Your task to perform on an android device: Do I have any events this weekend? Image 0: 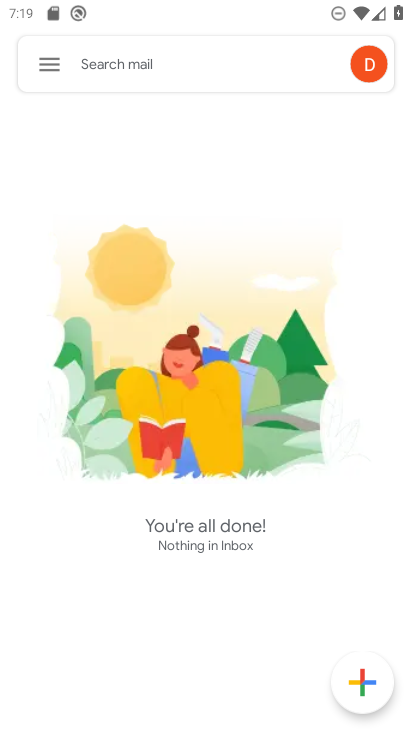
Step 0: press home button
Your task to perform on an android device: Do I have any events this weekend? Image 1: 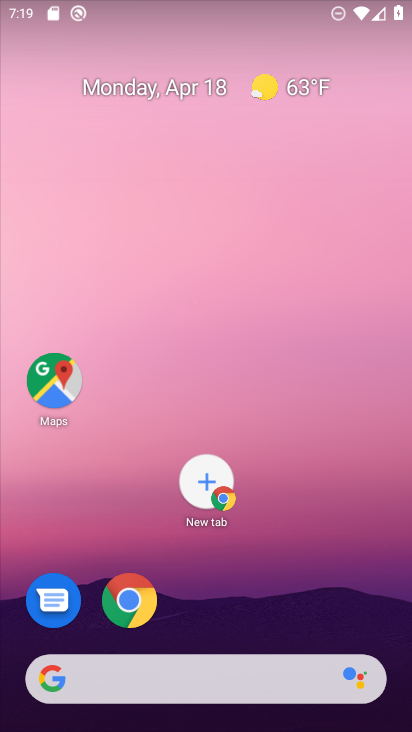
Step 1: drag from (303, 559) to (379, 0)
Your task to perform on an android device: Do I have any events this weekend? Image 2: 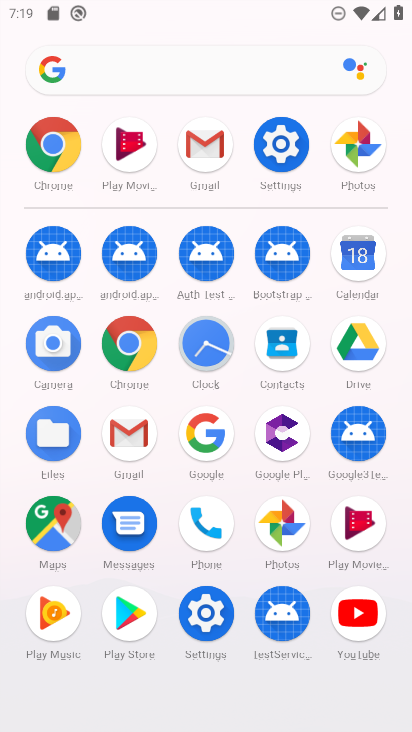
Step 2: click (357, 258)
Your task to perform on an android device: Do I have any events this weekend? Image 3: 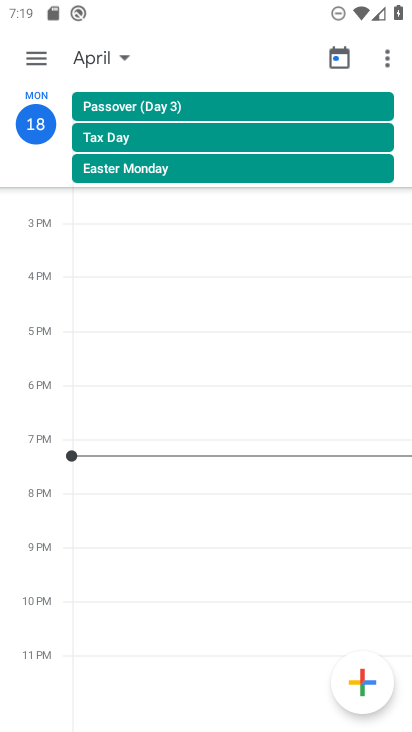
Step 3: click (36, 57)
Your task to perform on an android device: Do I have any events this weekend? Image 4: 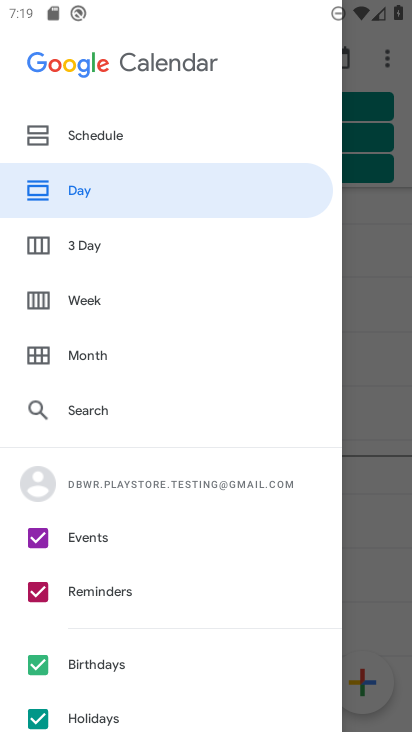
Step 4: click (78, 187)
Your task to perform on an android device: Do I have any events this weekend? Image 5: 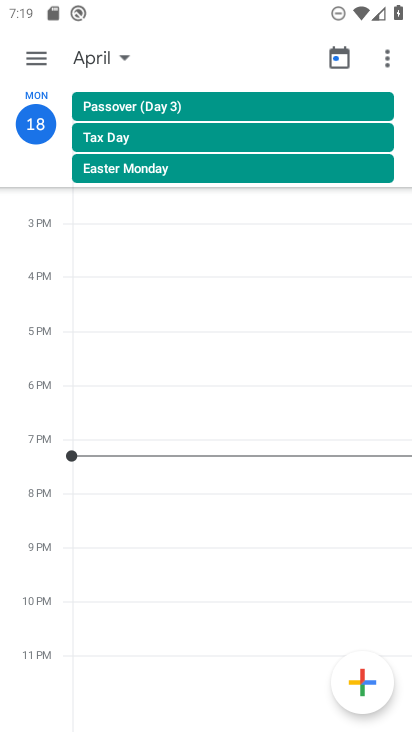
Step 5: click (128, 56)
Your task to perform on an android device: Do I have any events this weekend? Image 6: 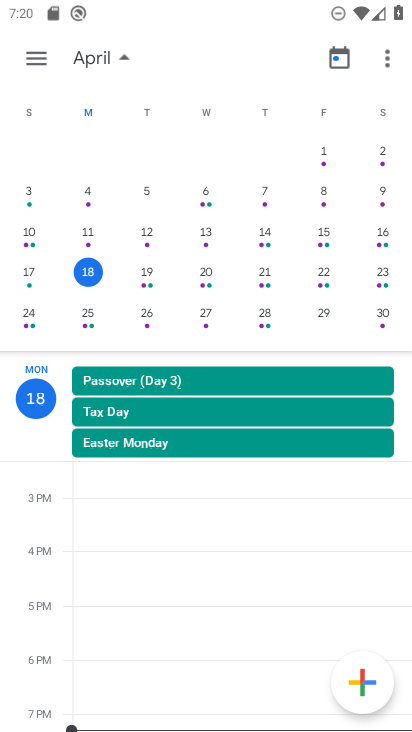
Step 6: click (82, 269)
Your task to perform on an android device: Do I have any events this weekend? Image 7: 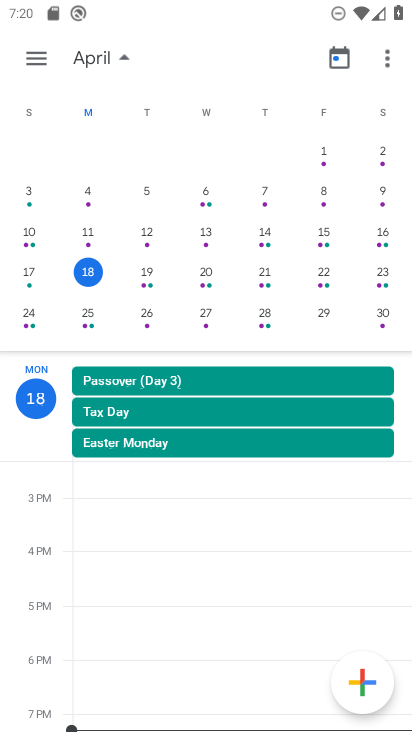
Step 7: task complete